Your task to perform on an android device: Search for "logitech g pro" on bestbuy, select the first entry, add it to the cart, then select checkout. Image 0: 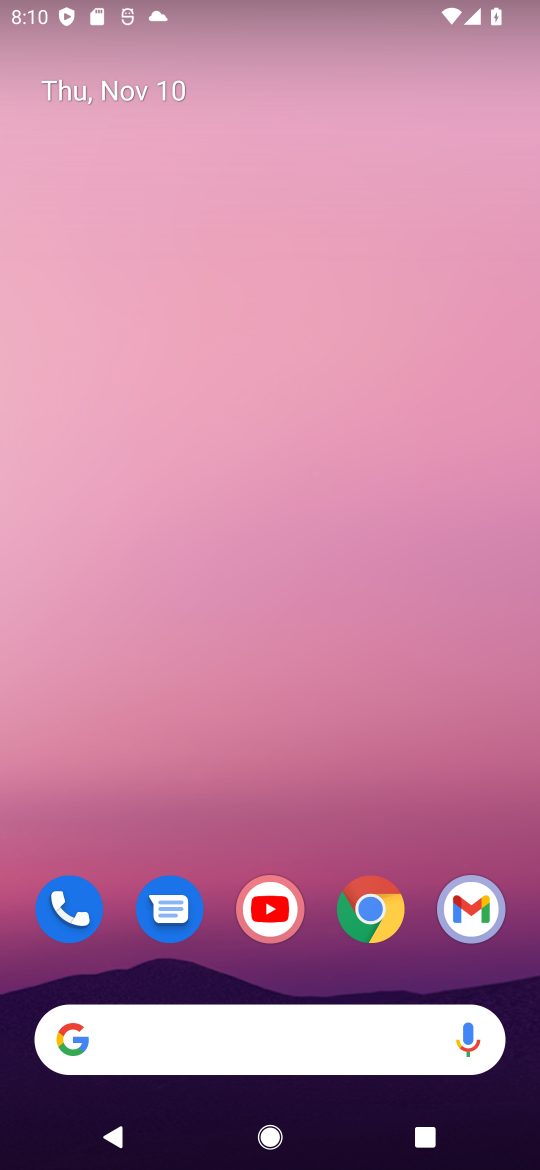
Step 0: drag from (241, 1075) to (318, 309)
Your task to perform on an android device: Search for "logitech g pro" on bestbuy, select the first entry, add it to the cart, then select checkout. Image 1: 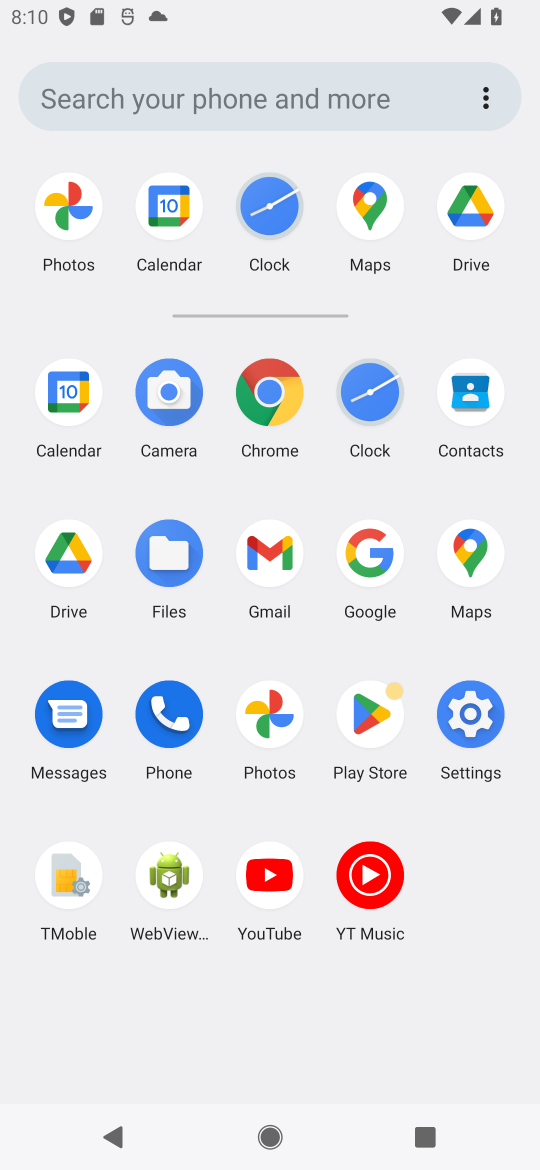
Step 1: click (352, 543)
Your task to perform on an android device: Search for "logitech g pro" on bestbuy, select the first entry, add it to the cart, then select checkout. Image 2: 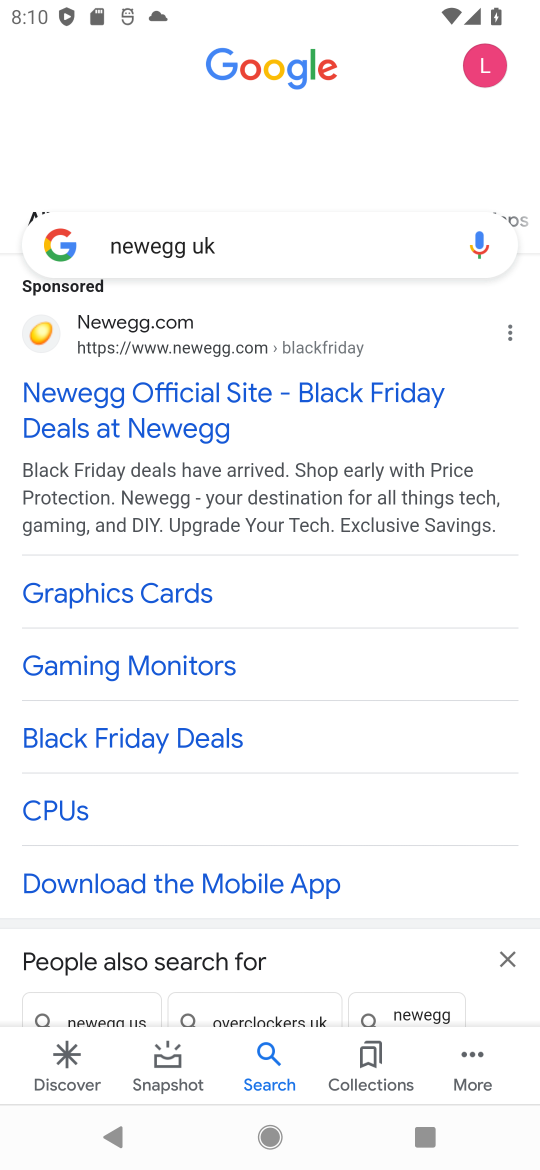
Step 2: click (273, 245)
Your task to perform on an android device: Search for "logitech g pro" on bestbuy, select the first entry, add it to the cart, then select checkout. Image 3: 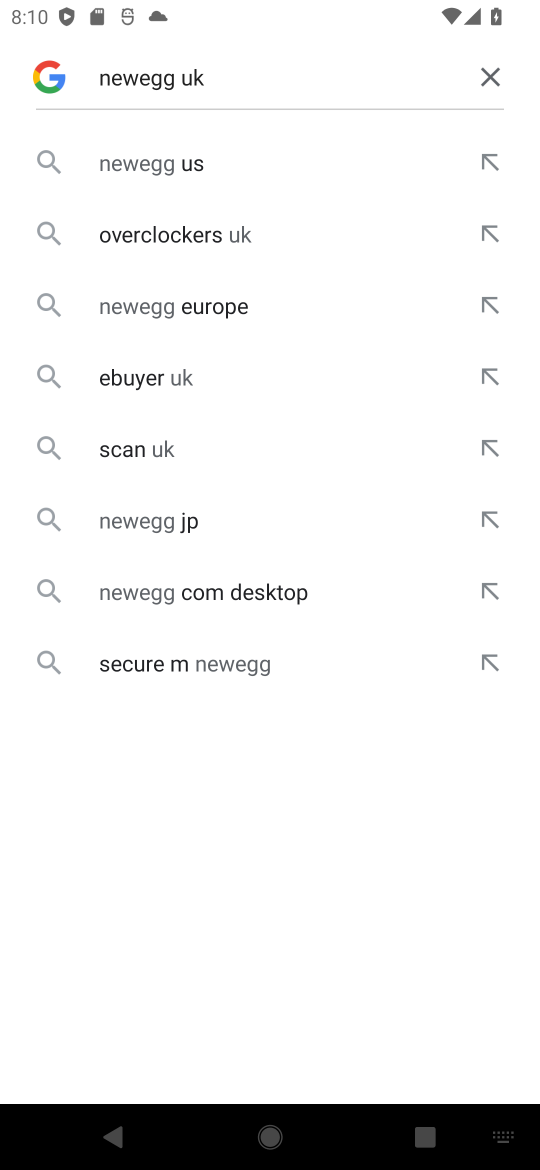
Step 3: click (493, 71)
Your task to perform on an android device: Search for "logitech g pro" on bestbuy, select the first entry, add it to the cart, then select checkout. Image 4: 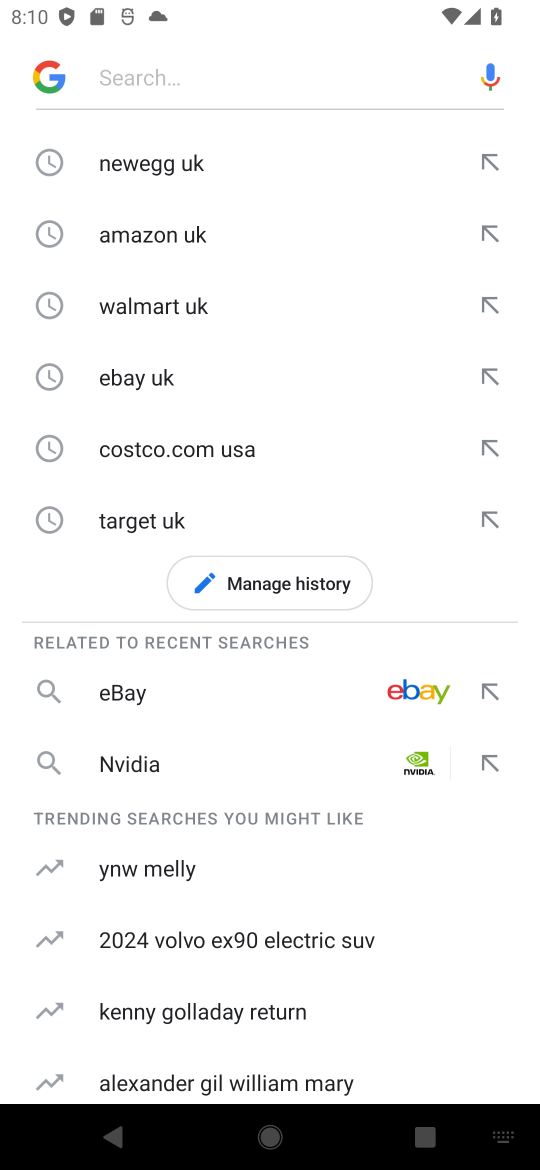
Step 4: click (193, 65)
Your task to perform on an android device: Search for "logitech g pro" on bestbuy, select the first entry, add it to the cart, then select checkout. Image 5: 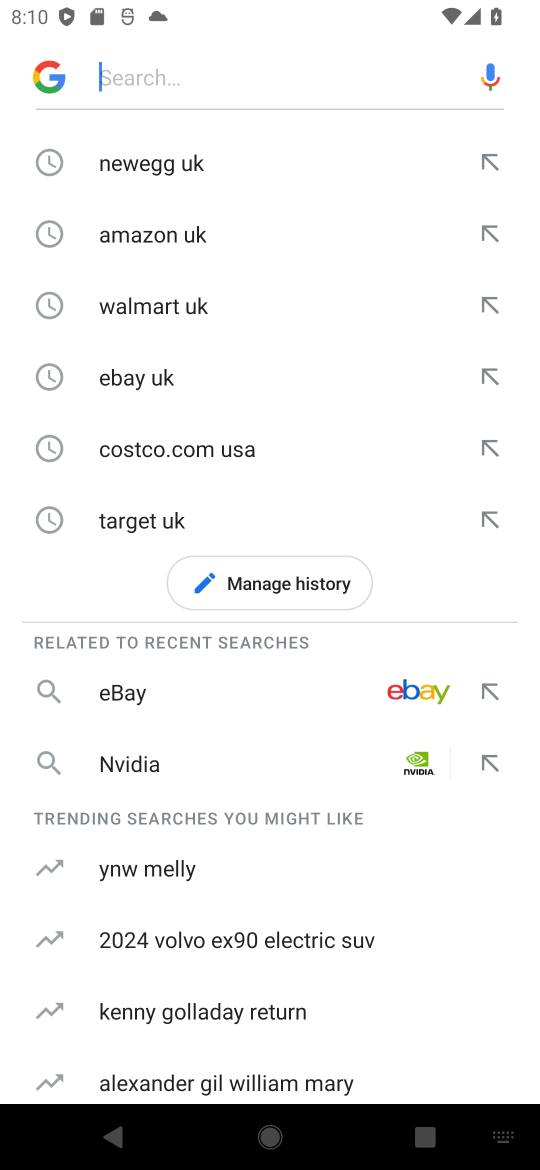
Step 5: type "bestbuy "
Your task to perform on an android device: Search for "logitech g pro" on bestbuy, select the first entry, add it to the cart, then select checkout. Image 6: 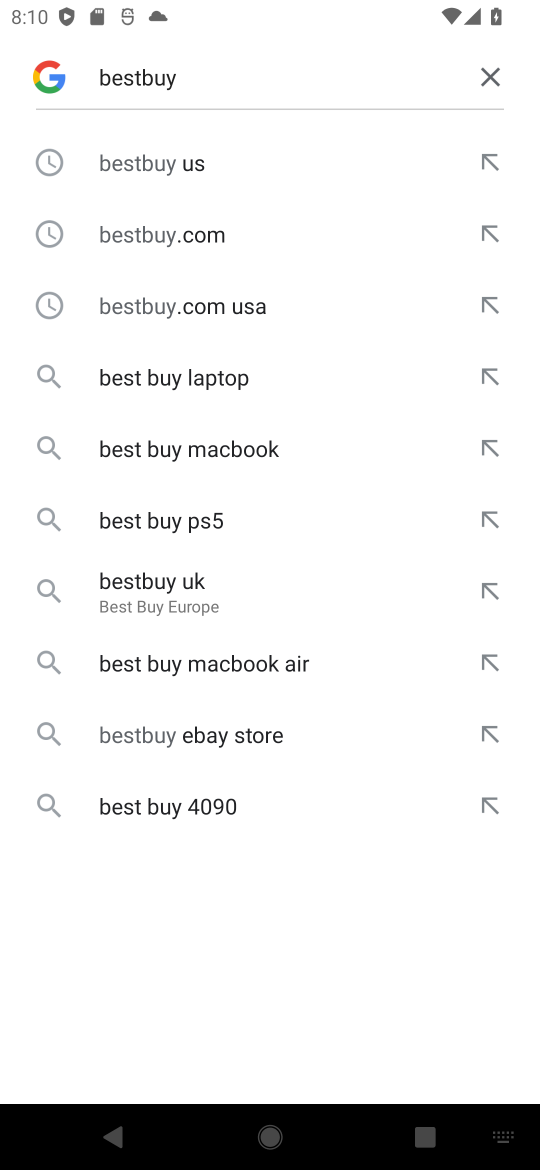
Step 6: click (179, 147)
Your task to perform on an android device: Search for "logitech g pro" on bestbuy, select the first entry, add it to the cart, then select checkout. Image 7: 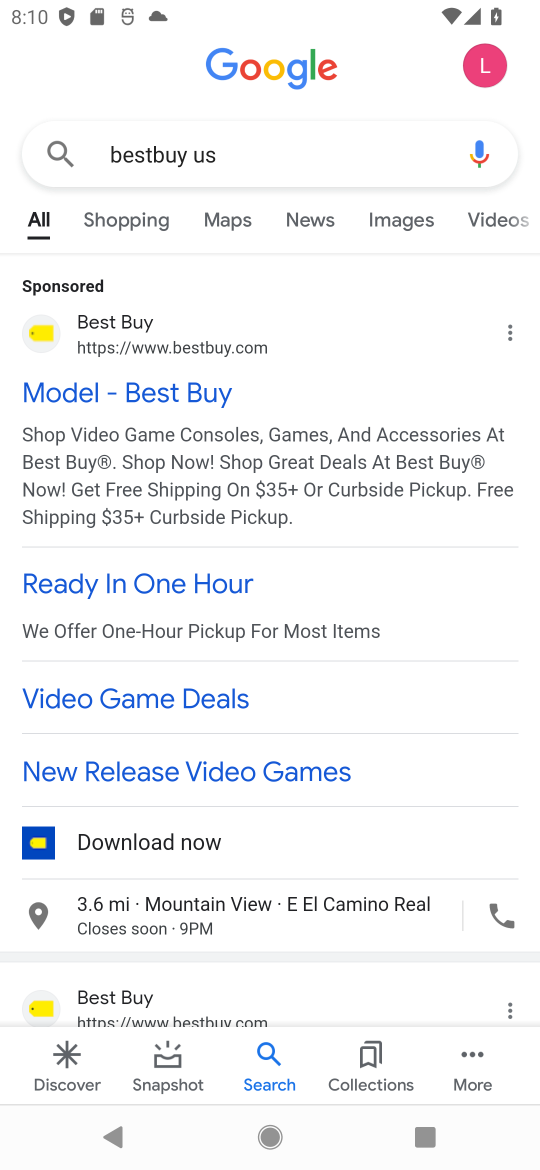
Step 7: click (48, 327)
Your task to perform on an android device: Search for "logitech g pro" on bestbuy, select the first entry, add it to the cart, then select checkout. Image 8: 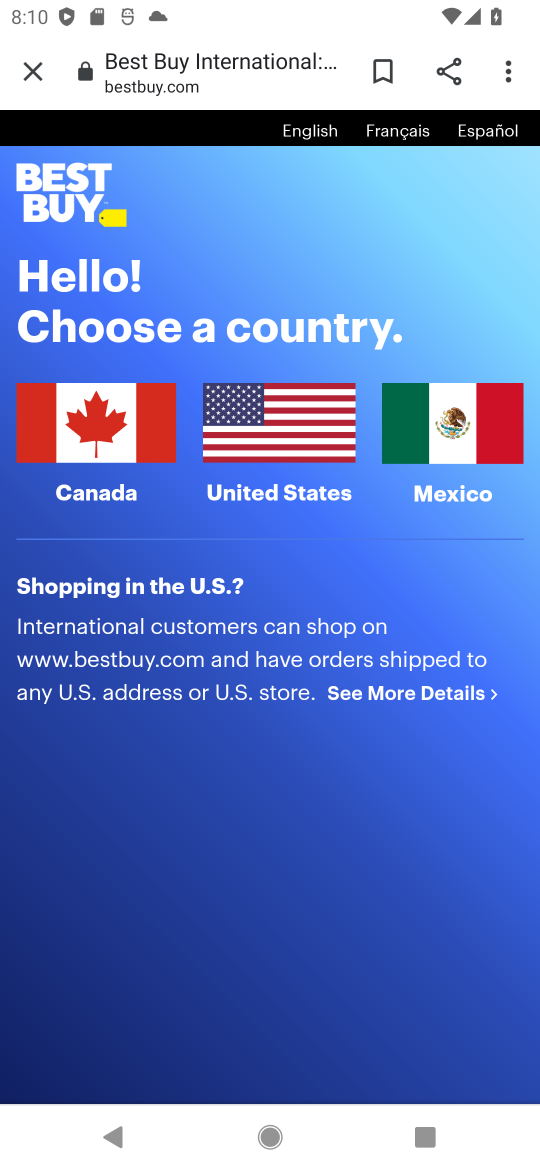
Step 8: click (307, 416)
Your task to perform on an android device: Search for "logitech g pro" on bestbuy, select the first entry, add it to the cart, then select checkout. Image 9: 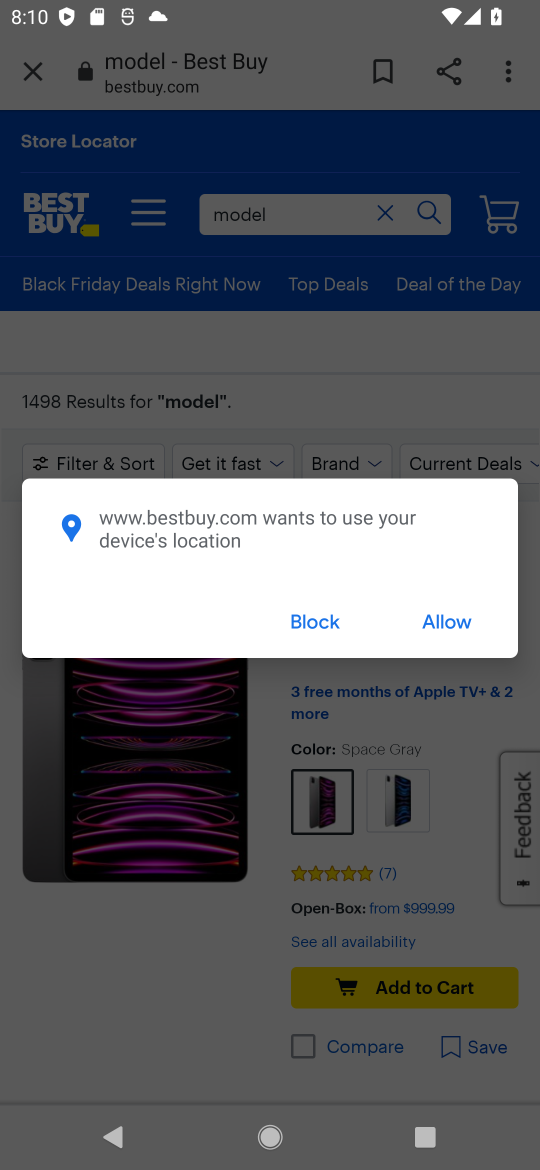
Step 9: click (457, 629)
Your task to perform on an android device: Search for "logitech g pro" on bestbuy, select the first entry, add it to the cart, then select checkout. Image 10: 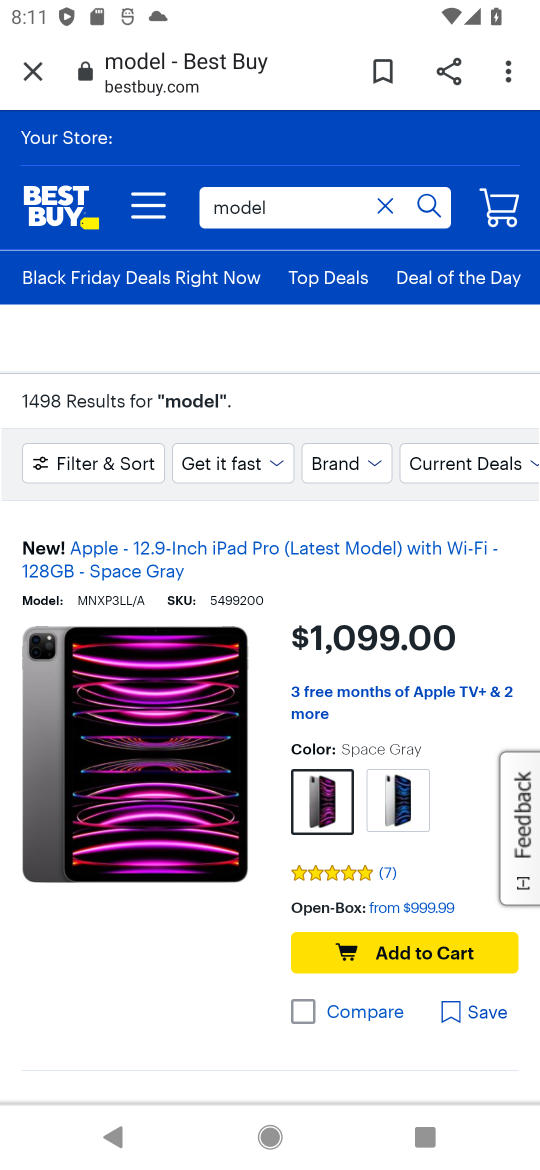
Step 10: click (381, 211)
Your task to perform on an android device: Search for "logitech g pro" on bestbuy, select the first entry, add it to the cart, then select checkout. Image 11: 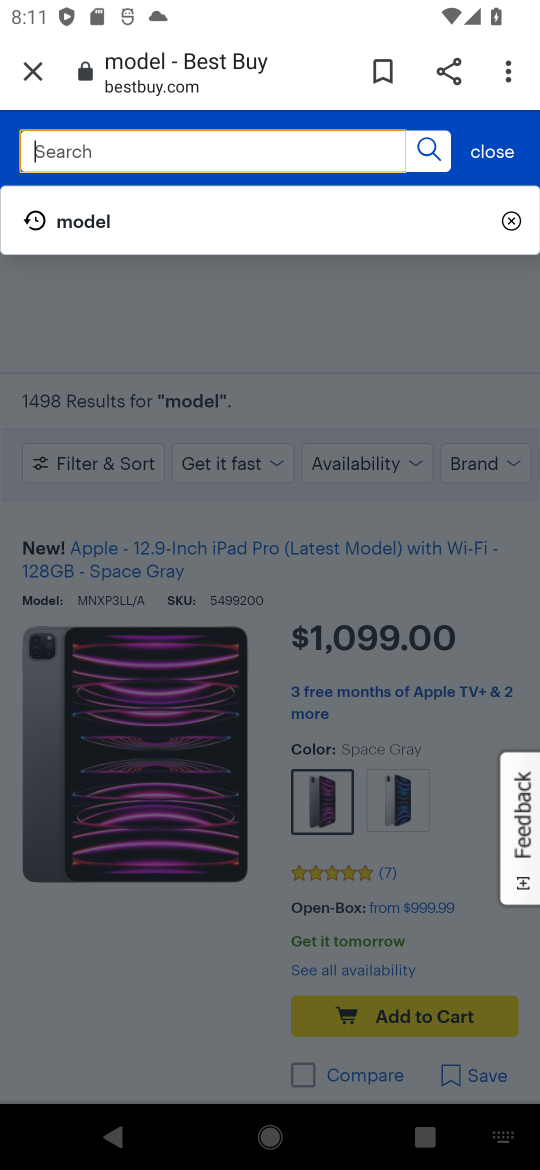
Step 11: click (309, 147)
Your task to perform on an android device: Search for "logitech g pro" on bestbuy, select the first entry, add it to the cart, then select checkout. Image 12: 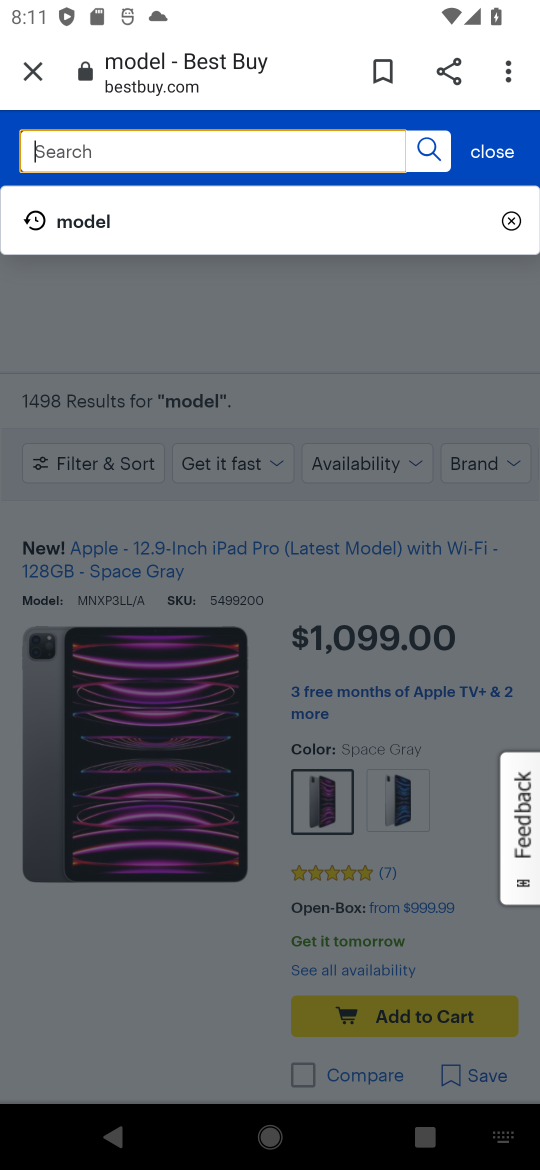
Step 12: type "logitech g pro "
Your task to perform on an android device: Search for "logitech g pro" on bestbuy, select the first entry, add it to the cart, then select checkout. Image 13: 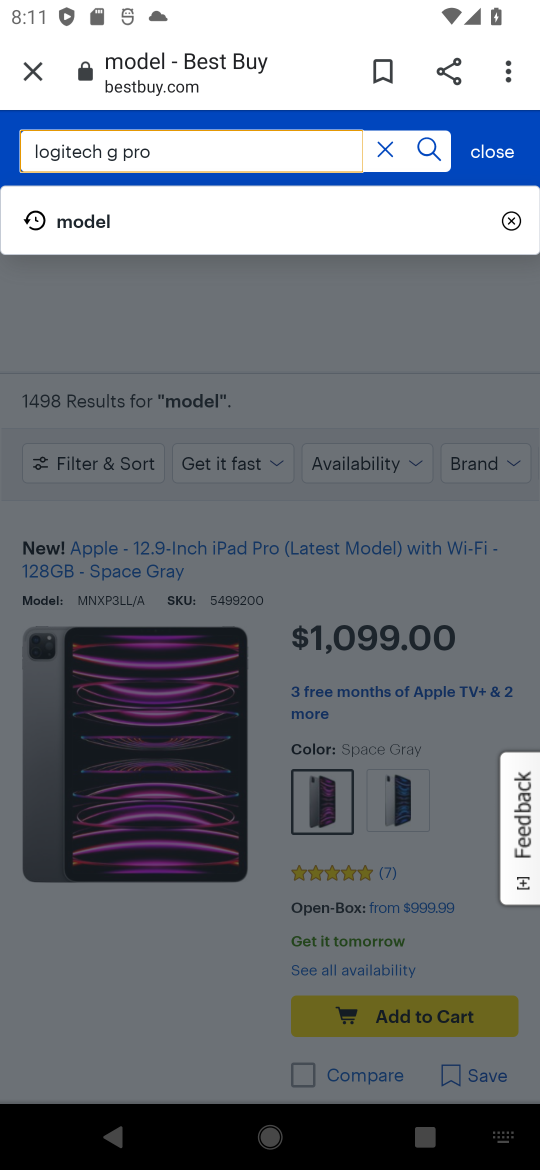
Step 13: click (433, 141)
Your task to perform on an android device: Search for "logitech g pro" on bestbuy, select the first entry, add it to the cart, then select checkout. Image 14: 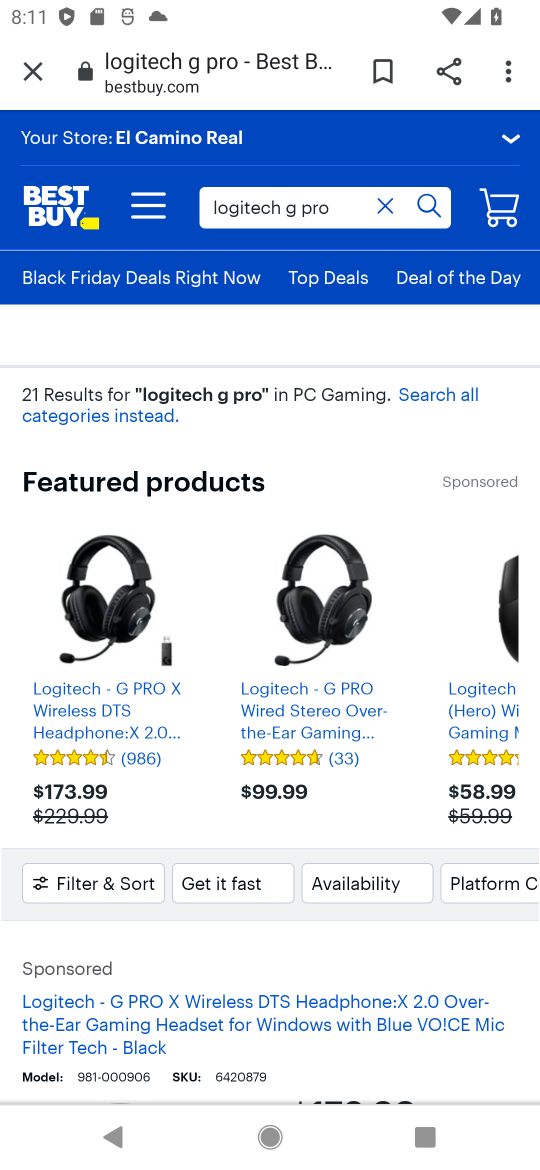
Step 14: drag from (312, 1021) to (263, 508)
Your task to perform on an android device: Search for "logitech g pro" on bestbuy, select the first entry, add it to the cart, then select checkout. Image 15: 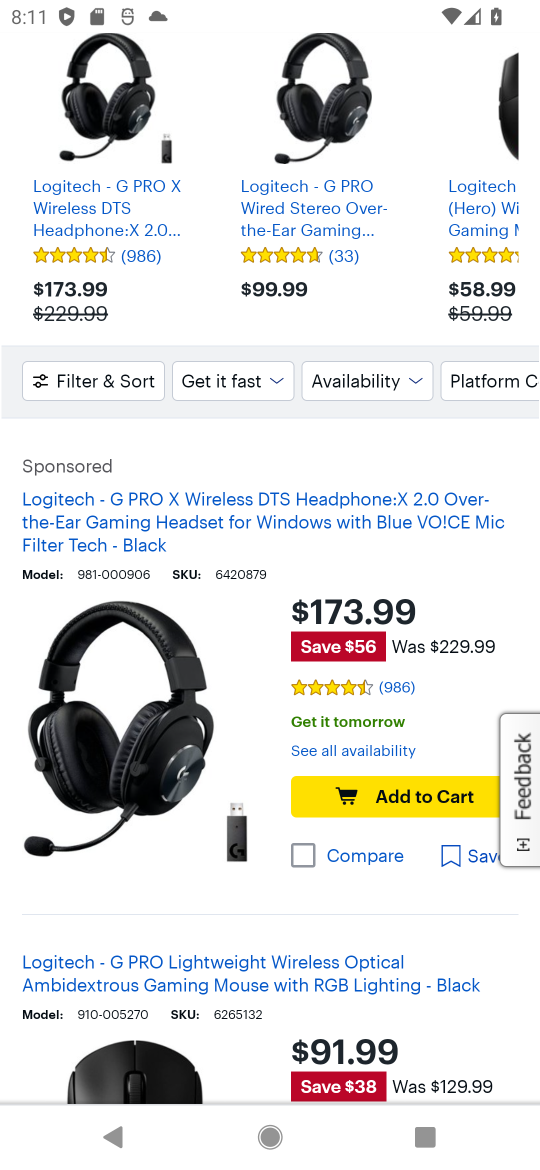
Step 15: click (363, 787)
Your task to perform on an android device: Search for "logitech g pro" on bestbuy, select the first entry, add it to the cart, then select checkout. Image 16: 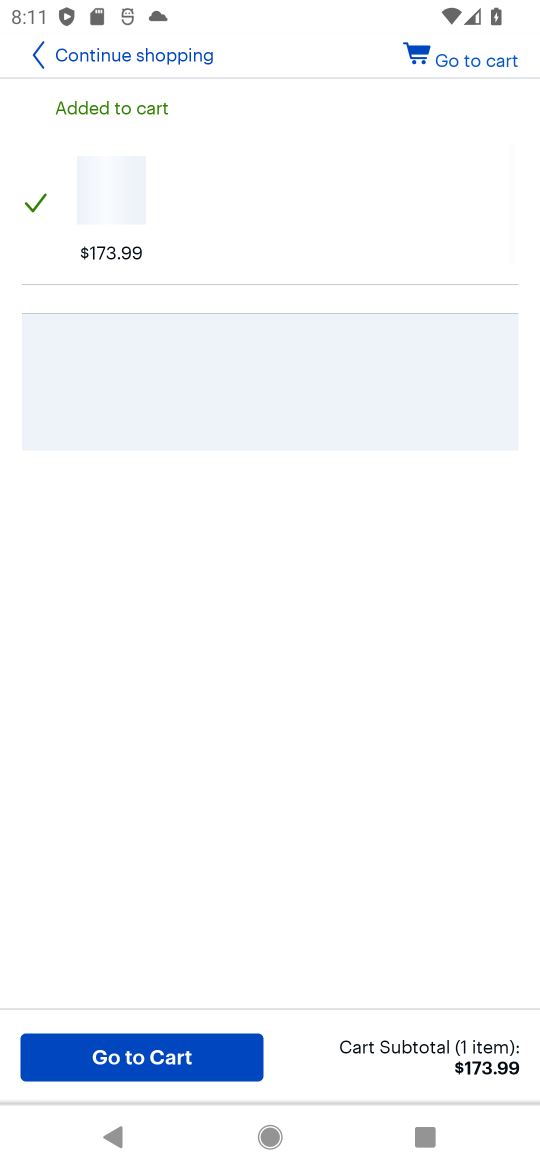
Step 16: task complete